Your task to perform on an android device: install app "Google Keep" Image 0: 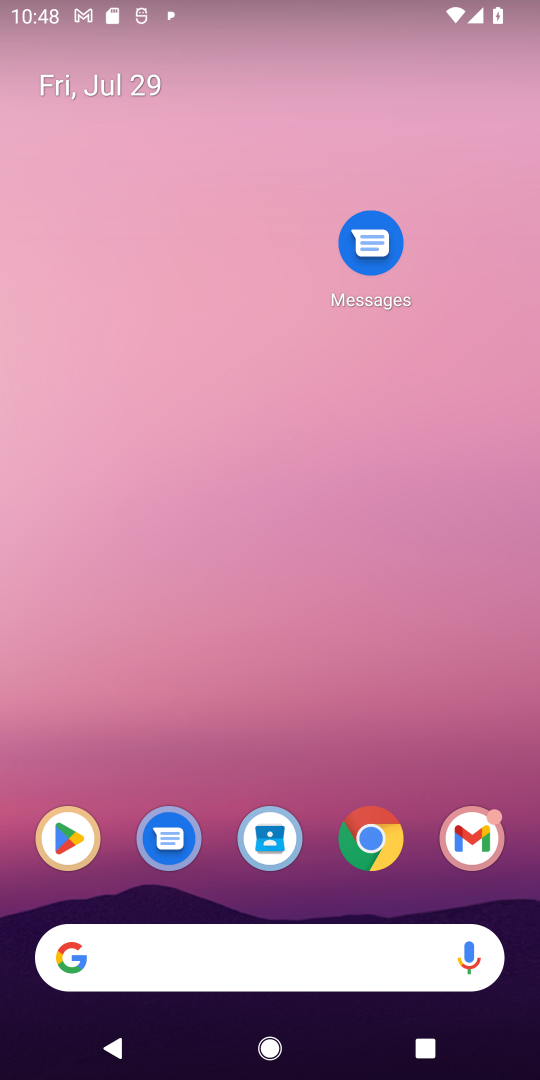
Step 0: click (62, 851)
Your task to perform on an android device: install app "Google Keep" Image 1: 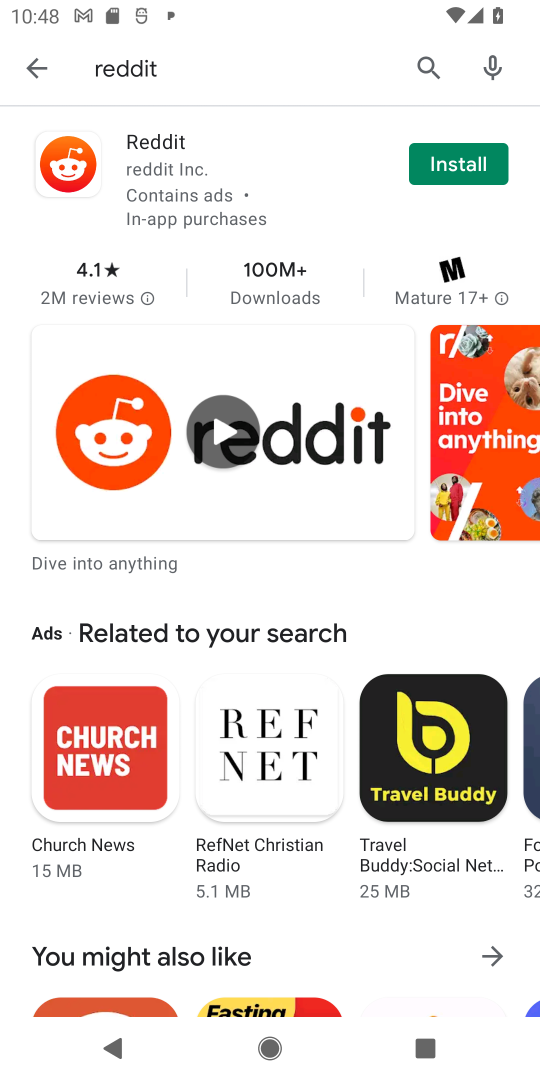
Step 1: click (166, 80)
Your task to perform on an android device: install app "Google Keep" Image 2: 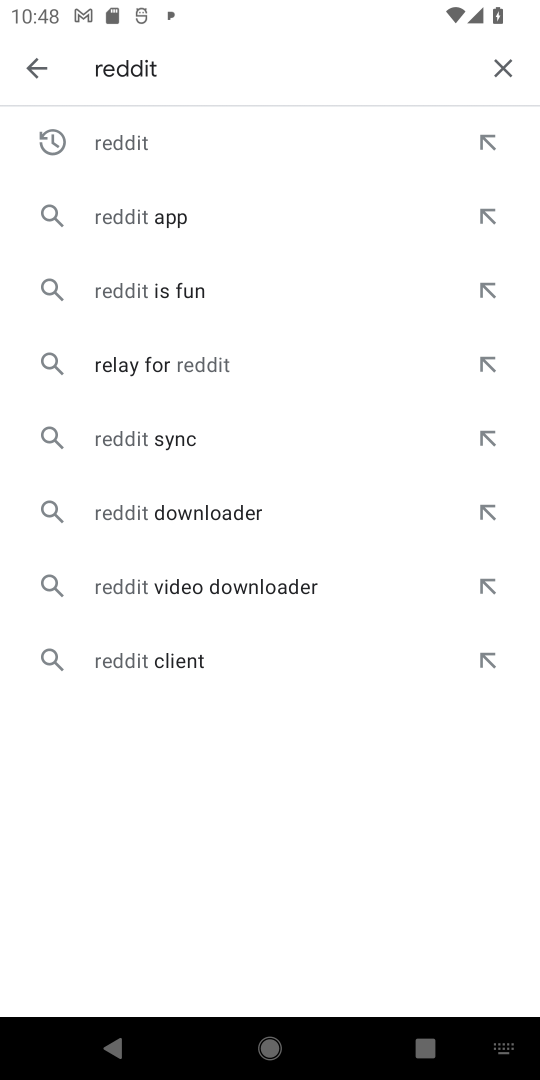
Step 2: click (497, 71)
Your task to perform on an android device: install app "Google Keep" Image 3: 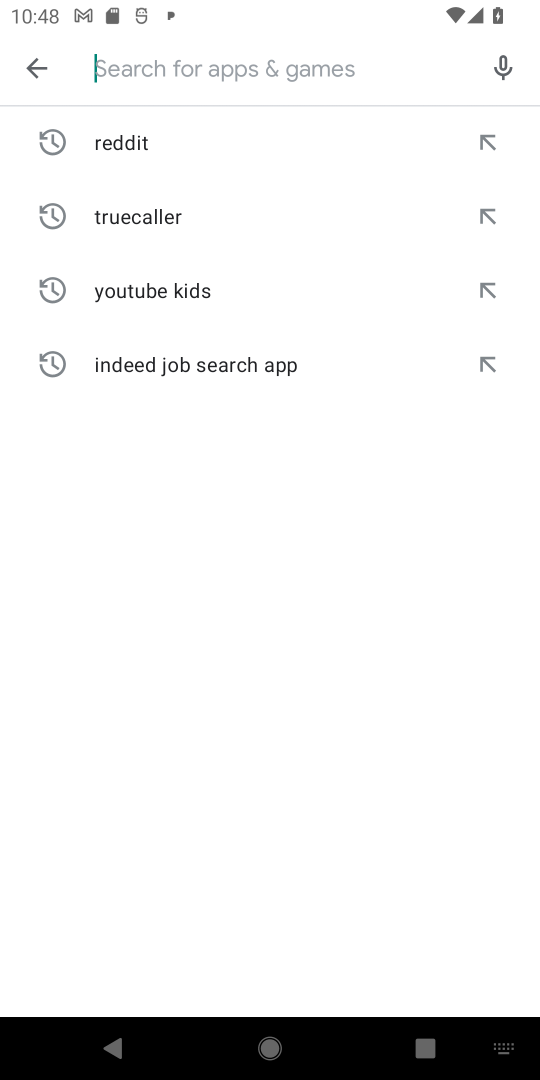
Step 3: type "google keep"
Your task to perform on an android device: install app "Google Keep" Image 4: 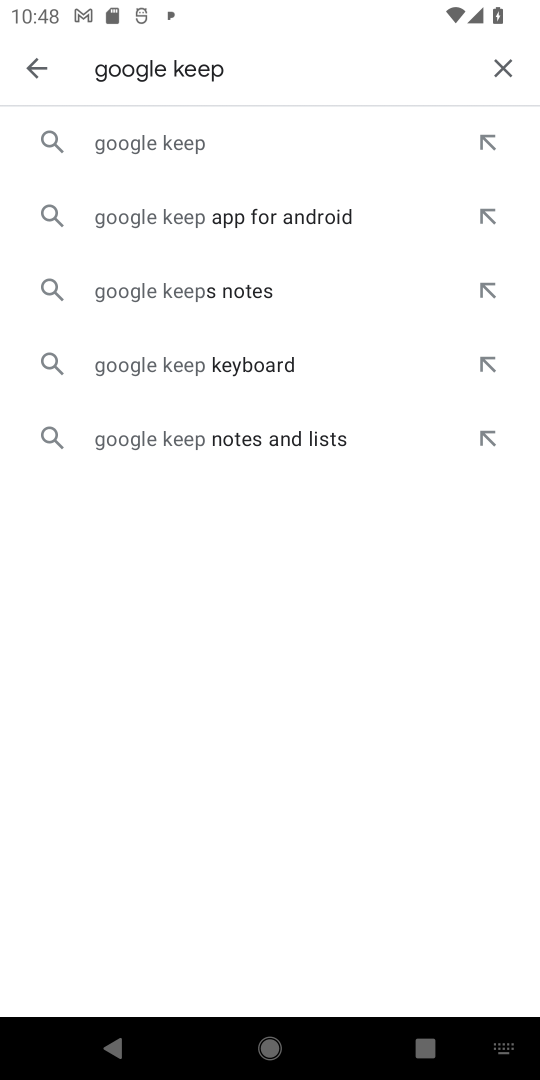
Step 4: click (133, 157)
Your task to perform on an android device: install app "Google Keep" Image 5: 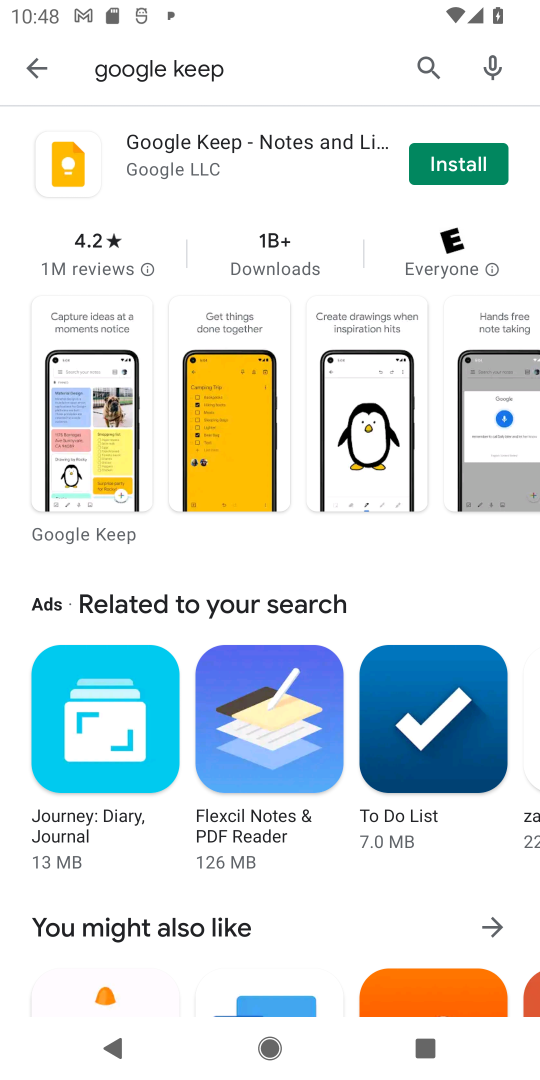
Step 5: click (476, 166)
Your task to perform on an android device: install app "Google Keep" Image 6: 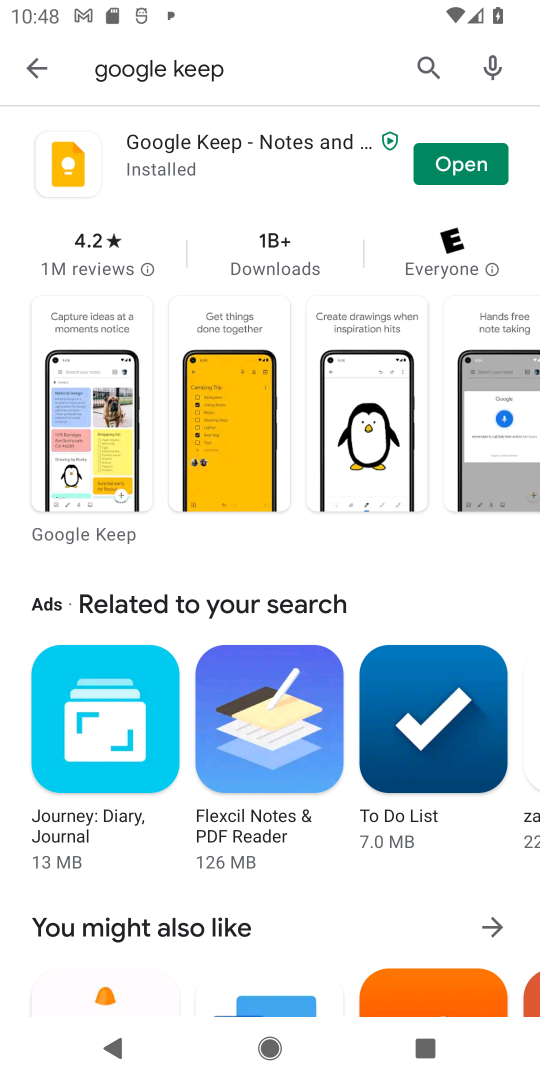
Step 6: task complete